Your task to perform on an android device: open device folders in google photos Image 0: 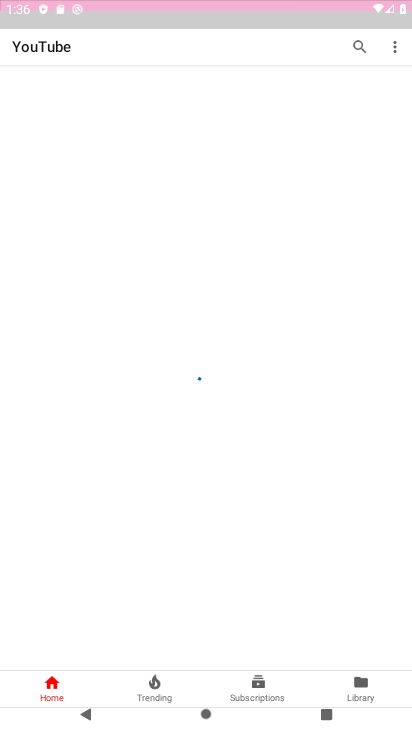
Step 0: press home button
Your task to perform on an android device: open device folders in google photos Image 1: 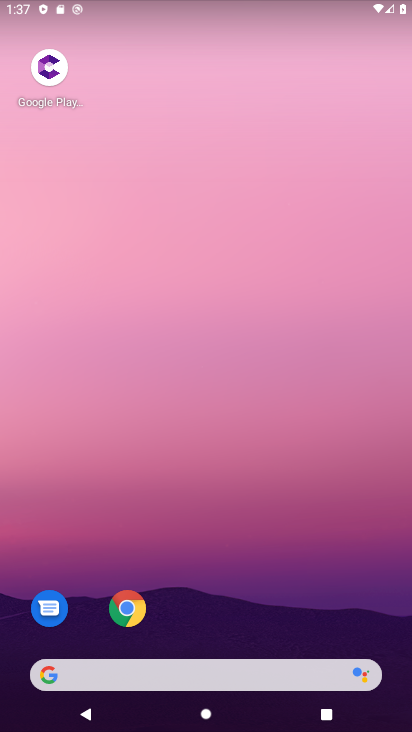
Step 1: drag from (227, 641) to (209, 82)
Your task to perform on an android device: open device folders in google photos Image 2: 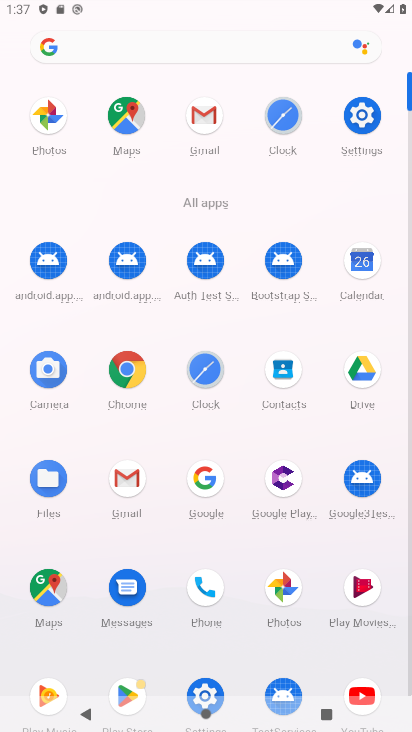
Step 2: click (283, 592)
Your task to perform on an android device: open device folders in google photos Image 3: 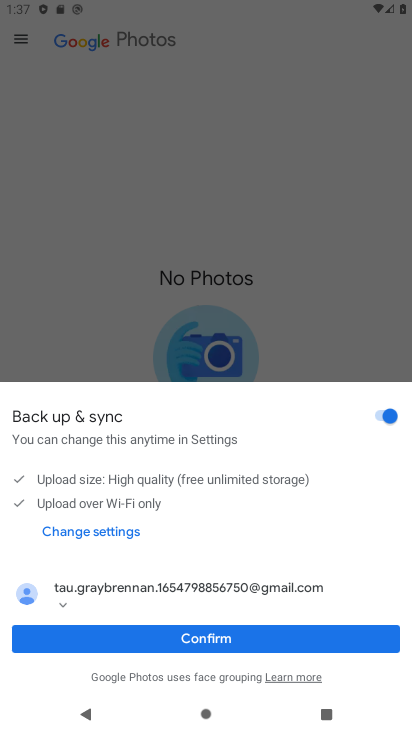
Step 3: click (203, 644)
Your task to perform on an android device: open device folders in google photos Image 4: 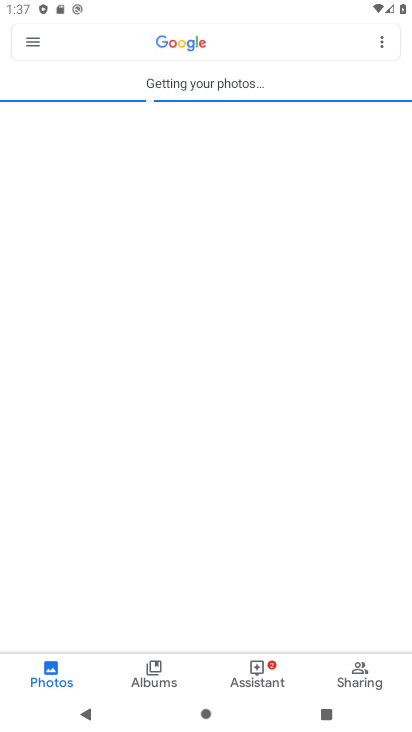
Step 4: click (30, 41)
Your task to perform on an android device: open device folders in google photos Image 5: 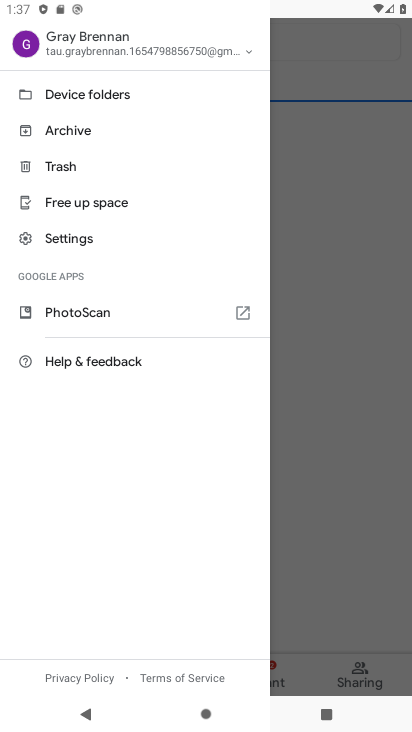
Step 5: click (97, 101)
Your task to perform on an android device: open device folders in google photos Image 6: 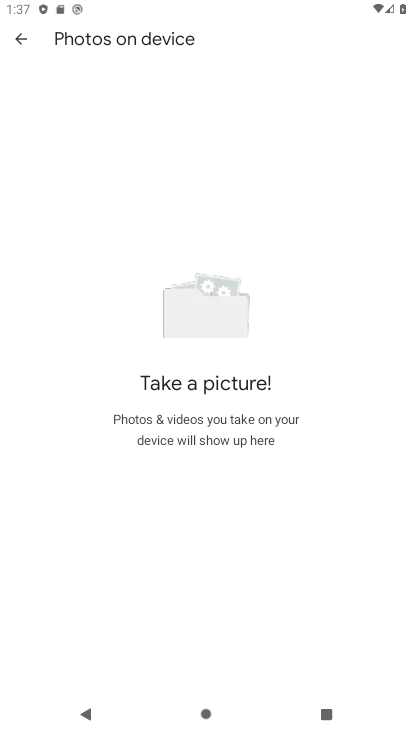
Step 6: task complete